Your task to perform on an android device: open app "Move to iOS" Image 0: 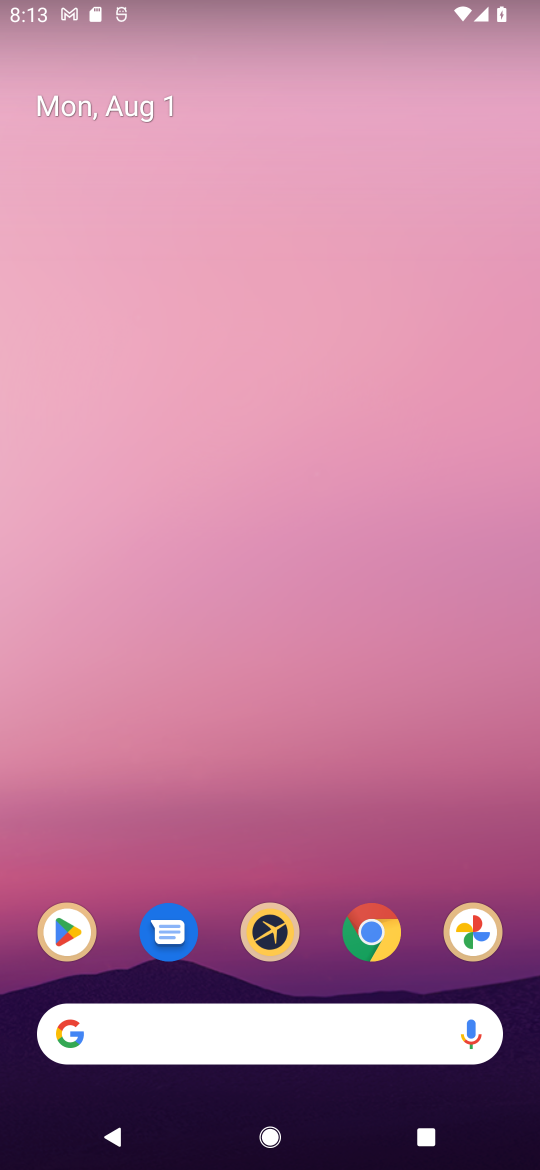
Step 0: click (61, 924)
Your task to perform on an android device: open app "Move to iOS" Image 1: 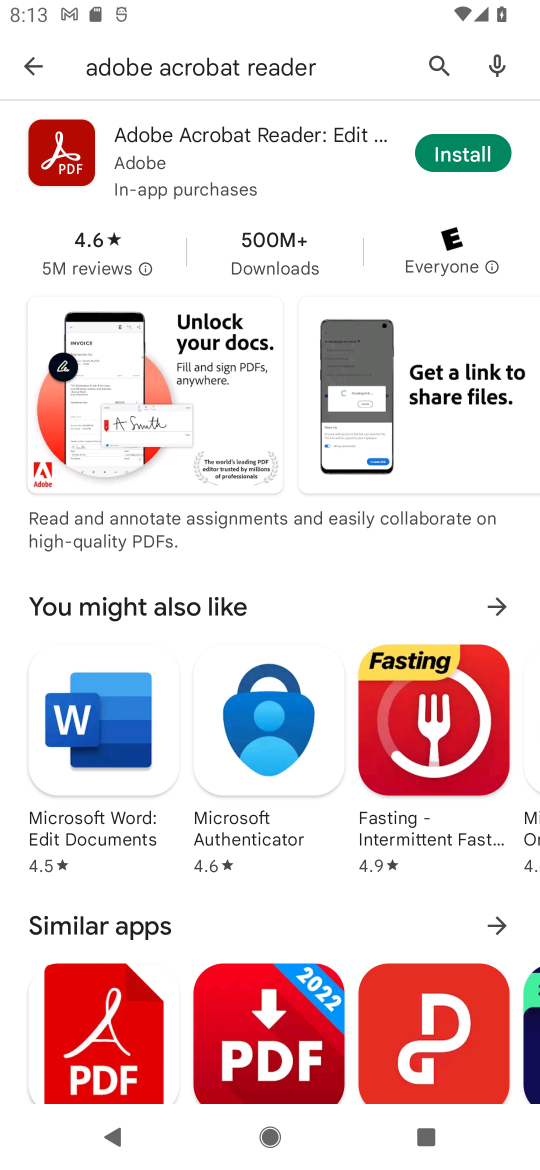
Step 1: click (180, 61)
Your task to perform on an android device: open app "Move to iOS" Image 2: 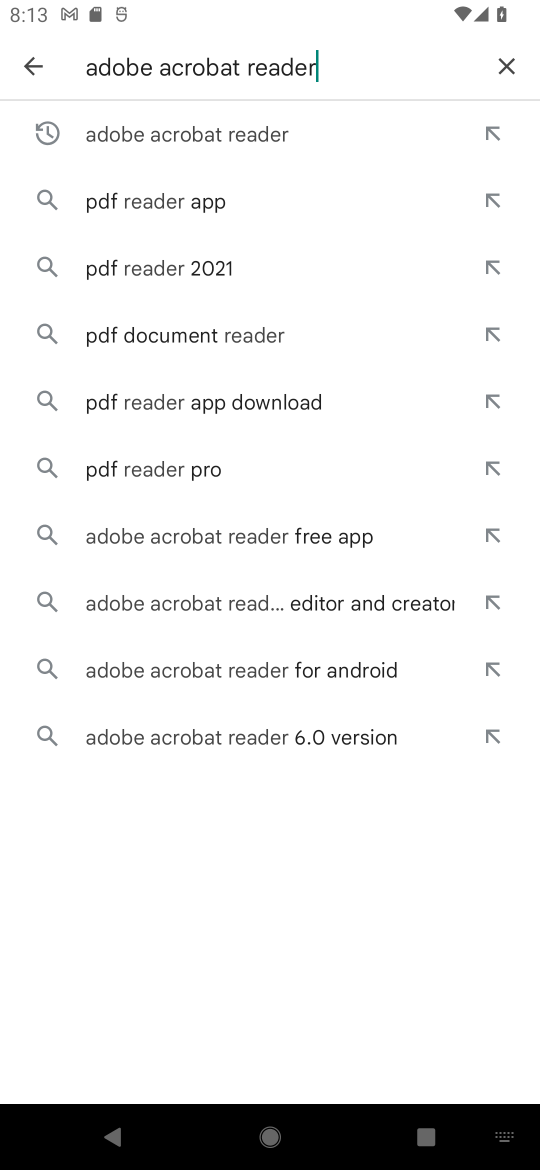
Step 2: click (495, 64)
Your task to perform on an android device: open app "Move to iOS" Image 3: 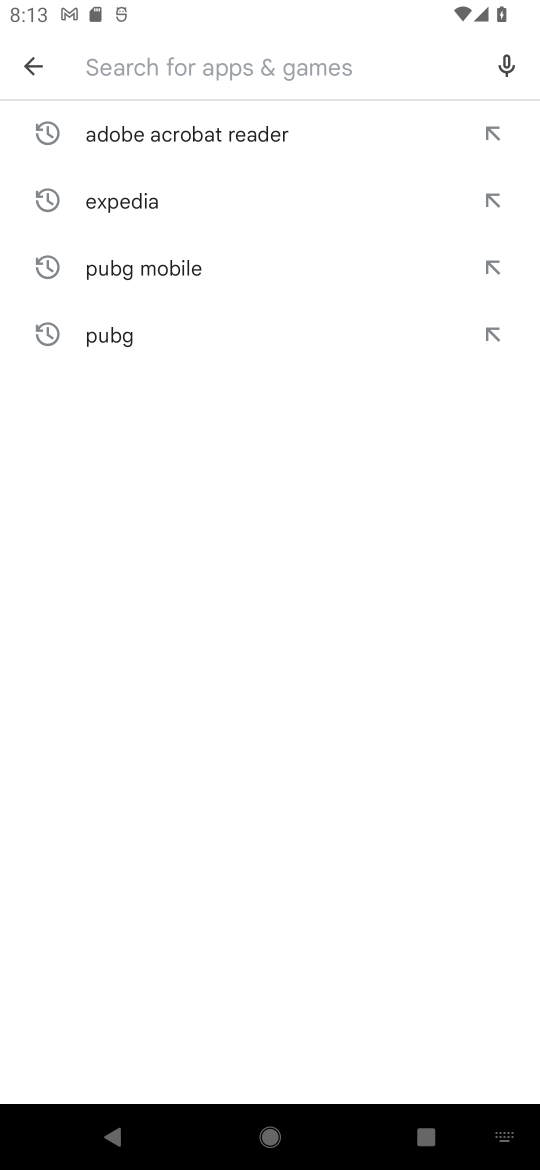
Step 3: type "MOve To IOS"
Your task to perform on an android device: open app "Move to iOS" Image 4: 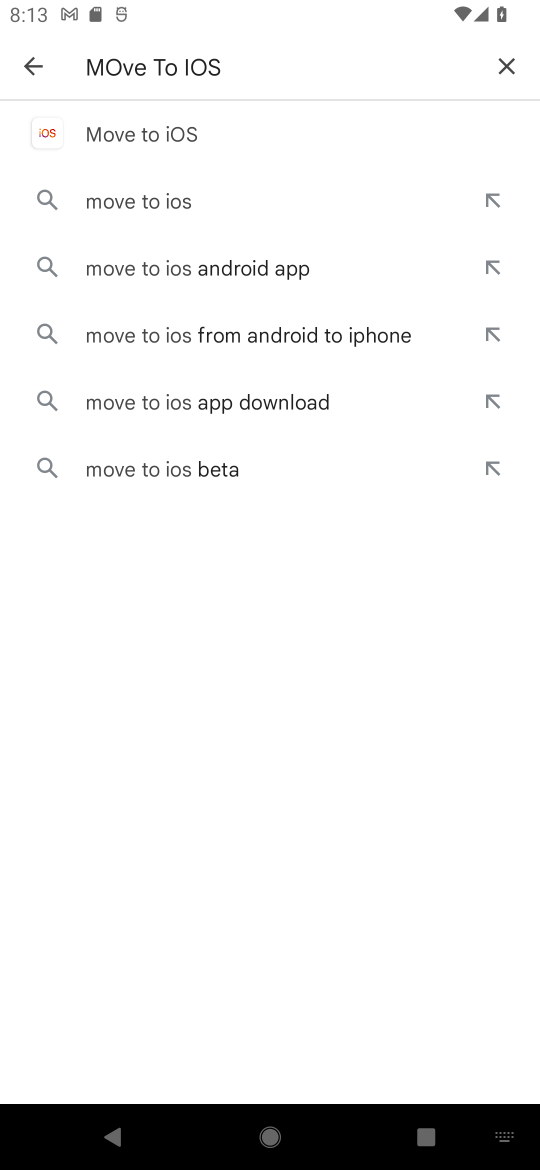
Step 4: click (203, 108)
Your task to perform on an android device: open app "Move to iOS" Image 5: 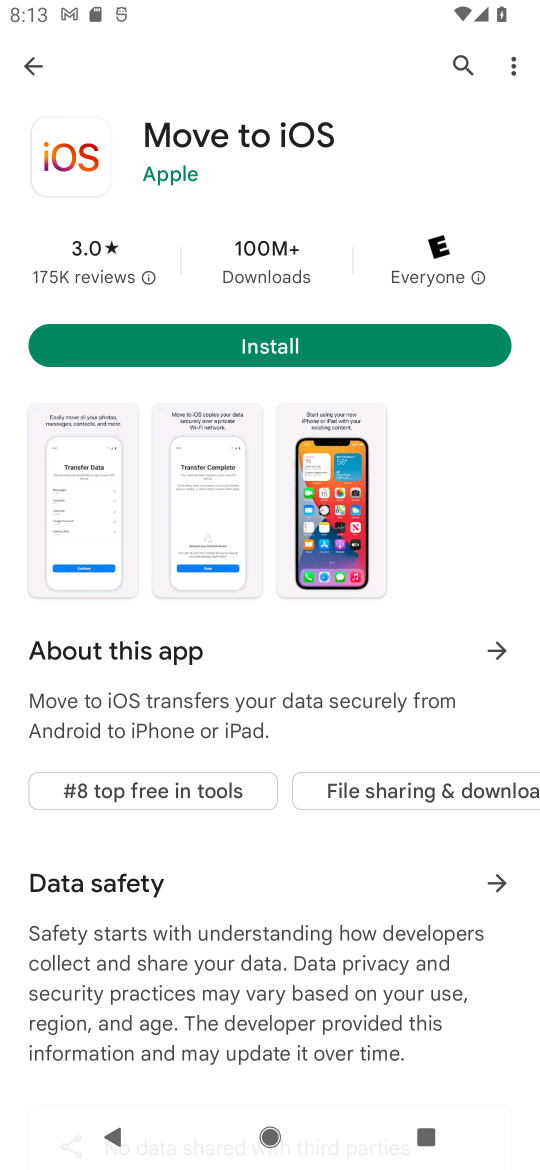
Step 5: task complete